Your task to perform on an android device: What's the weather today? Image 0: 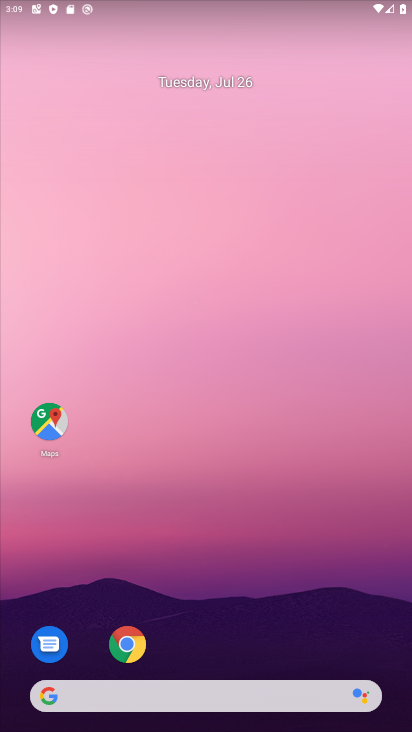
Step 0: drag from (227, 685) to (192, 211)
Your task to perform on an android device: What's the weather today? Image 1: 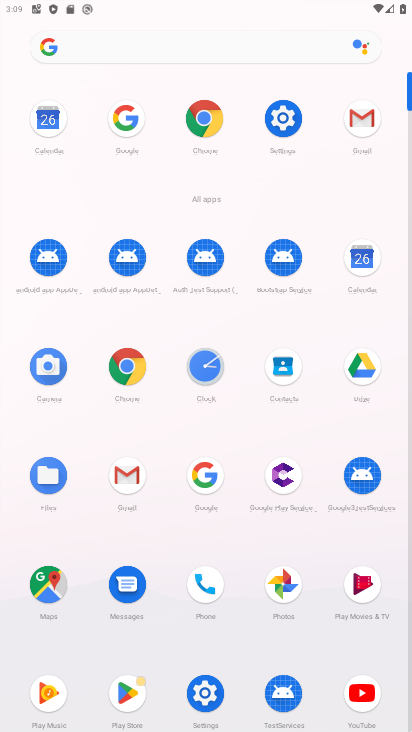
Step 1: click (356, 120)
Your task to perform on an android device: What's the weather today? Image 2: 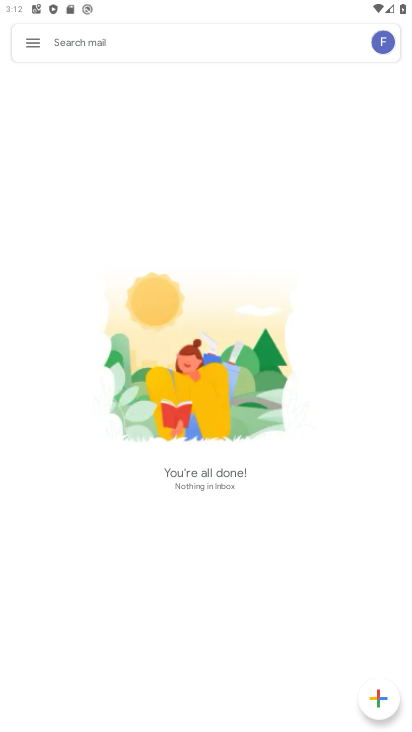
Step 2: press home button
Your task to perform on an android device: What's the weather today? Image 3: 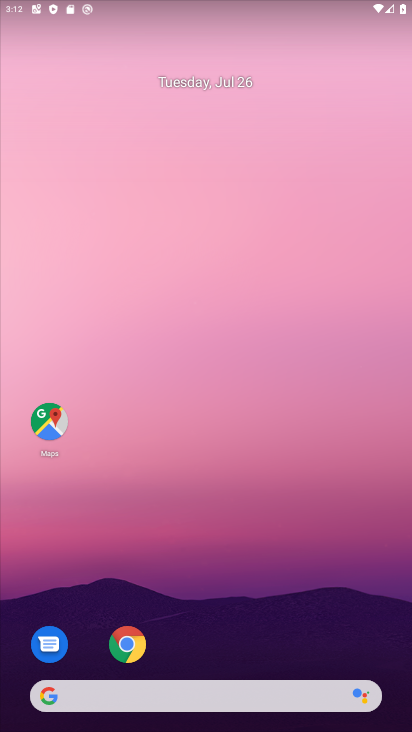
Step 3: drag from (191, 682) to (191, 187)
Your task to perform on an android device: What's the weather today? Image 4: 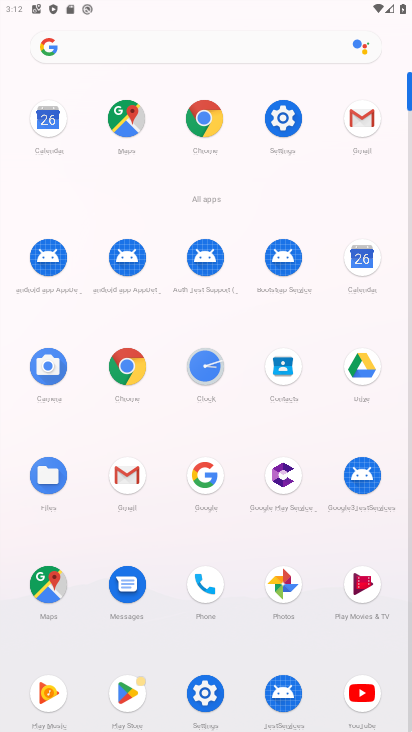
Step 4: click (199, 483)
Your task to perform on an android device: What's the weather today? Image 5: 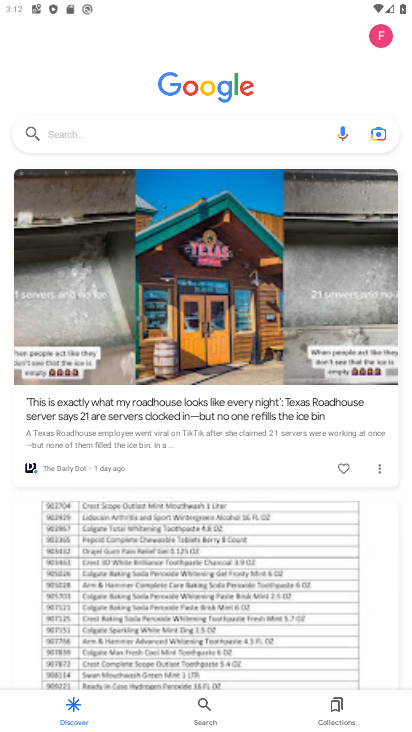
Step 5: click (138, 129)
Your task to perform on an android device: What's the weather today? Image 6: 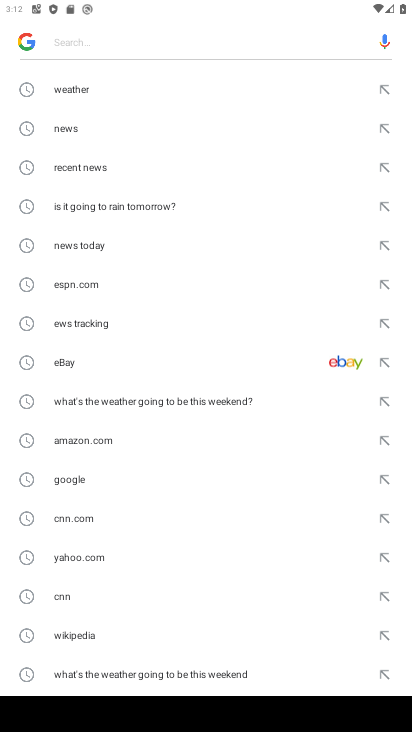
Step 6: click (81, 92)
Your task to perform on an android device: What's the weather today? Image 7: 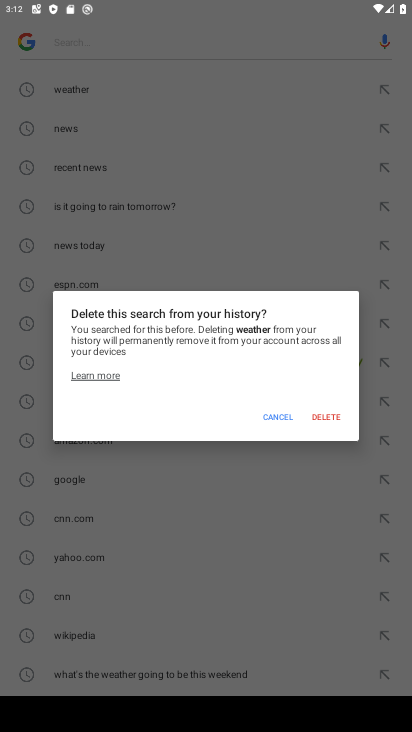
Step 7: click (279, 415)
Your task to perform on an android device: What's the weather today? Image 8: 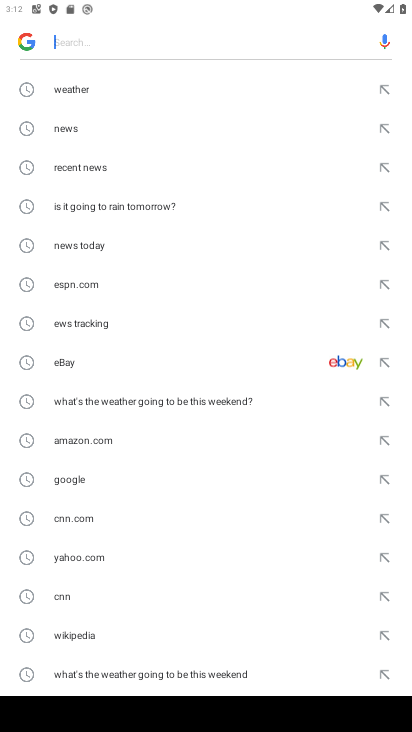
Step 8: click (73, 96)
Your task to perform on an android device: What's the weather today? Image 9: 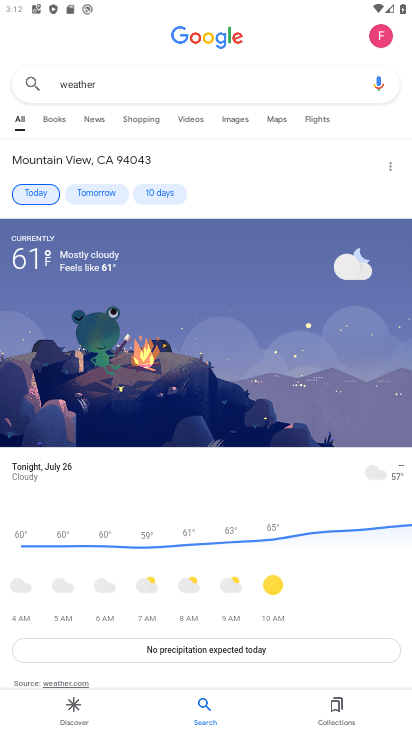
Step 9: task complete